Your task to perform on an android device: toggle airplane mode Image 0: 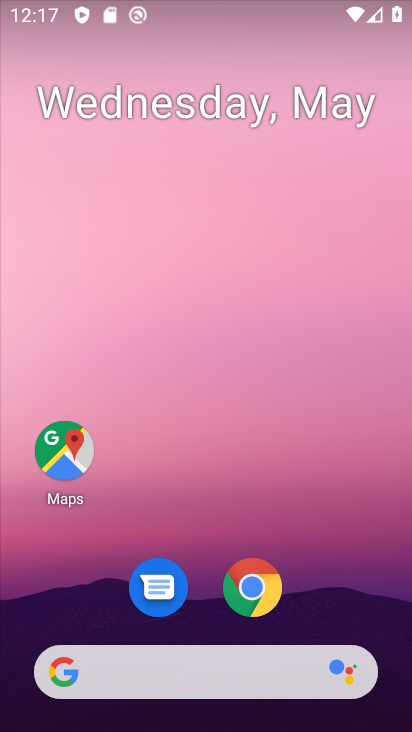
Step 0: drag from (68, 643) to (193, 121)
Your task to perform on an android device: toggle airplane mode Image 1: 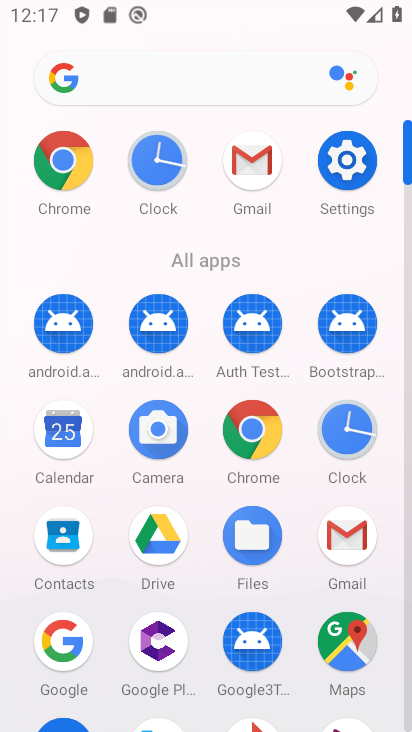
Step 1: drag from (163, 614) to (211, 366)
Your task to perform on an android device: toggle airplane mode Image 2: 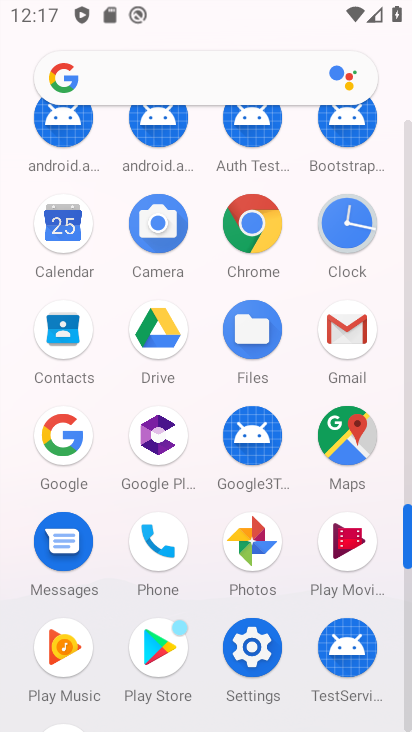
Step 2: click (249, 660)
Your task to perform on an android device: toggle airplane mode Image 3: 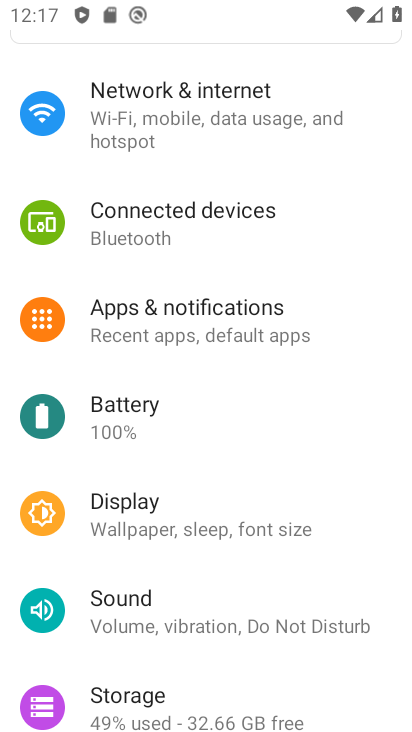
Step 3: click (222, 122)
Your task to perform on an android device: toggle airplane mode Image 4: 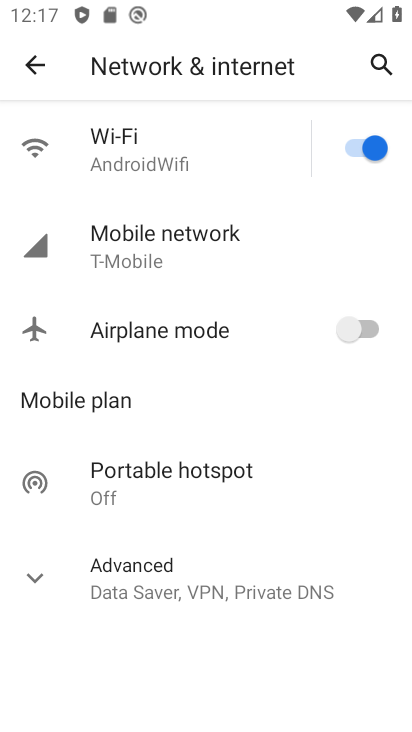
Step 4: click (369, 324)
Your task to perform on an android device: toggle airplane mode Image 5: 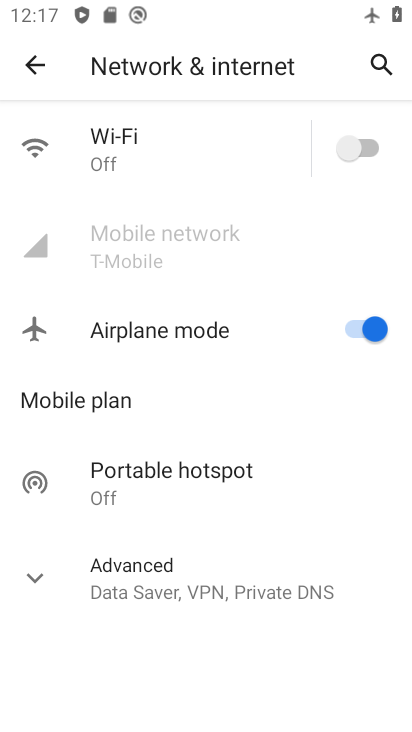
Step 5: task complete